Your task to perform on an android device: Open my contact list Image 0: 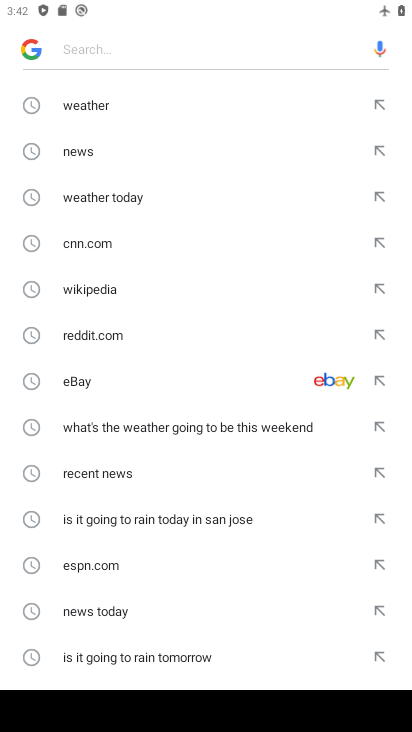
Step 0: press home button
Your task to perform on an android device: Open my contact list Image 1: 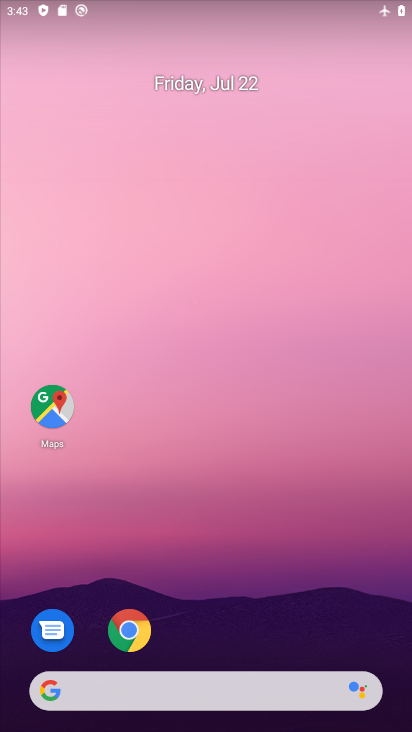
Step 1: drag from (186, 555) to (233, 4)
Your task to perform on an android device: Open my contact list Image 2: 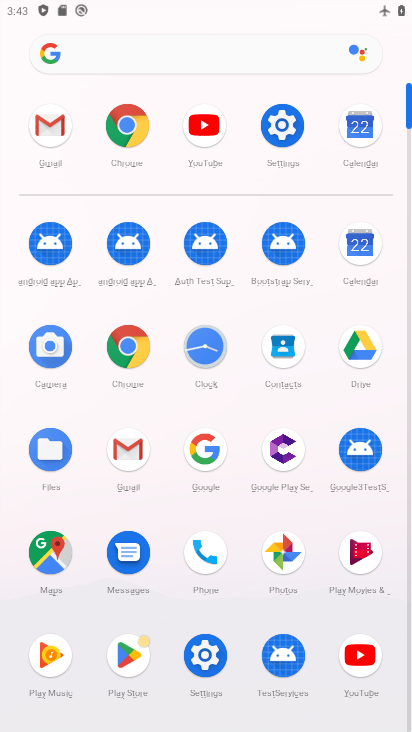
Step 2: click (279, 363)
Your task to perform on an android device: Open my contact list Image 3: 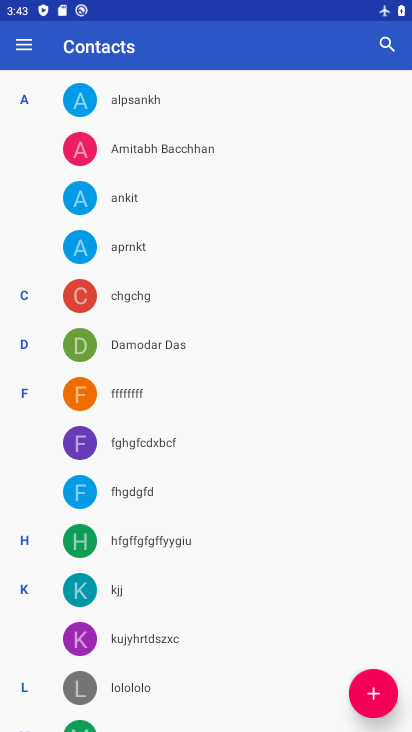
Step 3: task complete